Your task to perform on an android device: set an alarm Image 0: 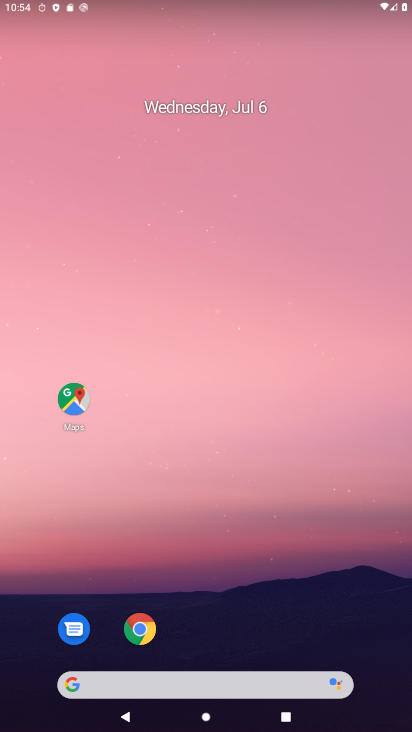
Step 0: drag from (245, 663) to (242, 64)
Your task to perform on an android device: set an alarm Image 1: 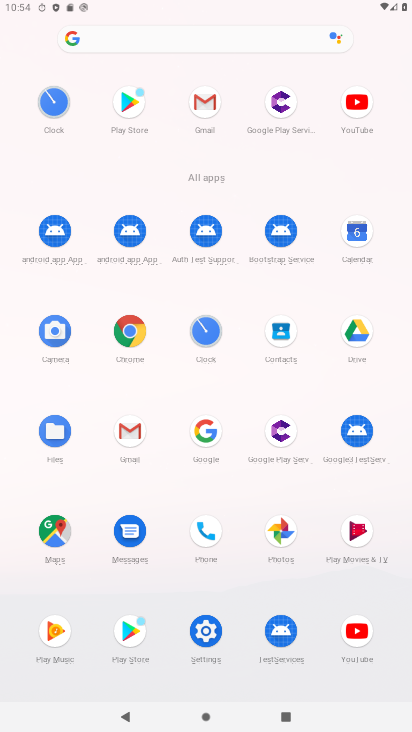
Step 1: click (51, 104)
Your task to perform on an android device: set an alarm Image 2: 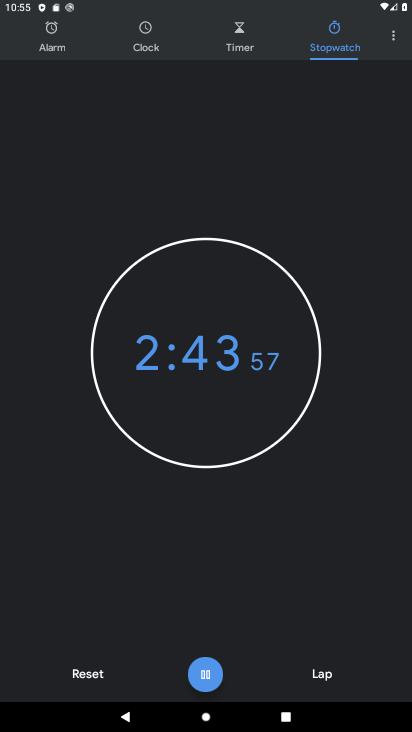
Step 2: click (52, 39)
Your task to perform on an android device: set an alarm Image 3: 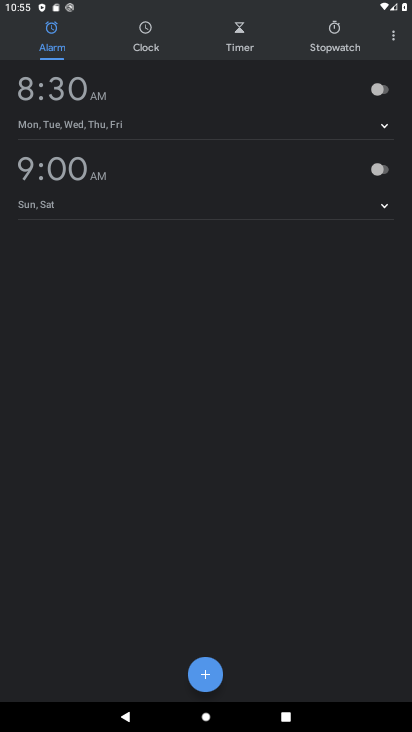
Step 3: click (376, 87)
Your task to perform on an android device: set an alarm Image 4: 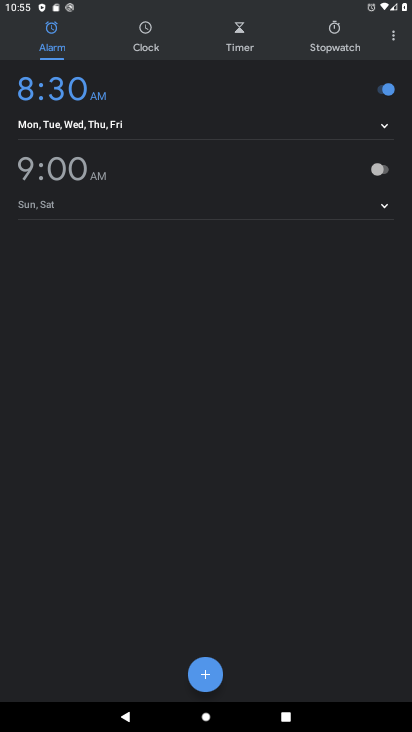
Step 4: task complete